Your task to perform on an android device: Go to location settings Image 0: 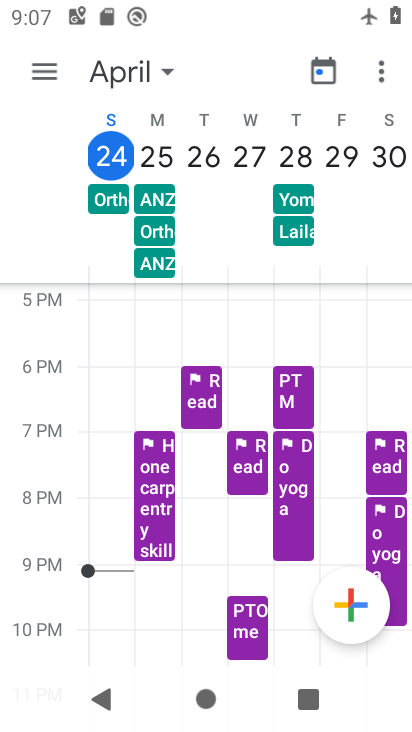
Step 0: press home button
Your task to perform on an android device: Go to location settings Image 1: 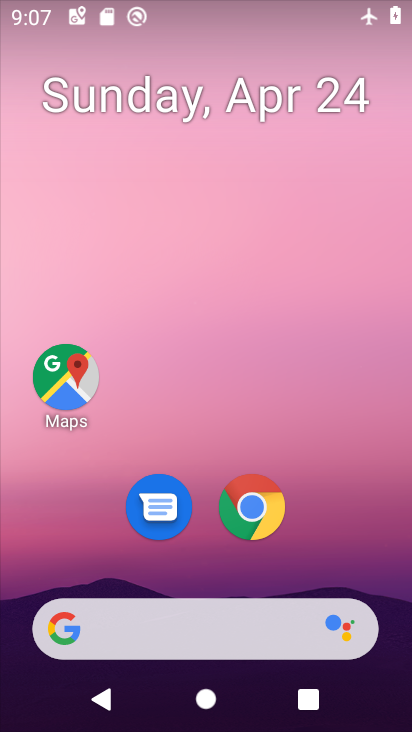
Step 1: drag from (377, 11) to (373, 304)
Your task to perform on an android device: Go to location settings Image 2: 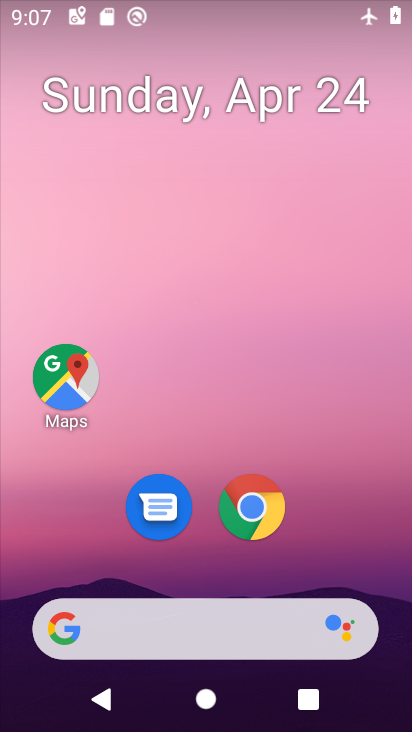
Step 2: drag from (365, 2) to (341, 520)
Your task to perform on an android device: Go to location settings Image 3: 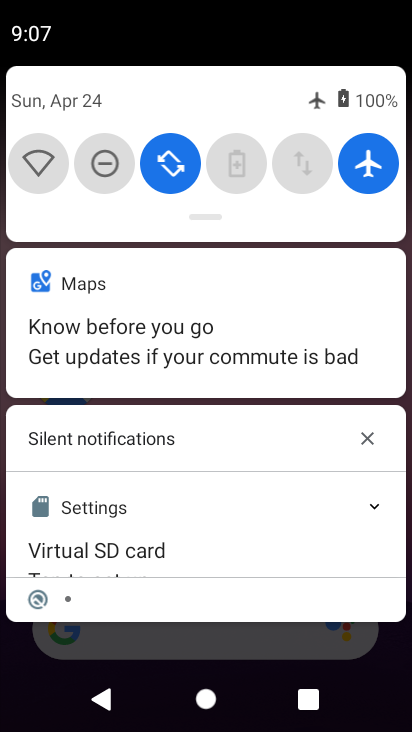
Step 3: click (352, 164)
Your task to perform on an android device: Go to location settings Image 4: 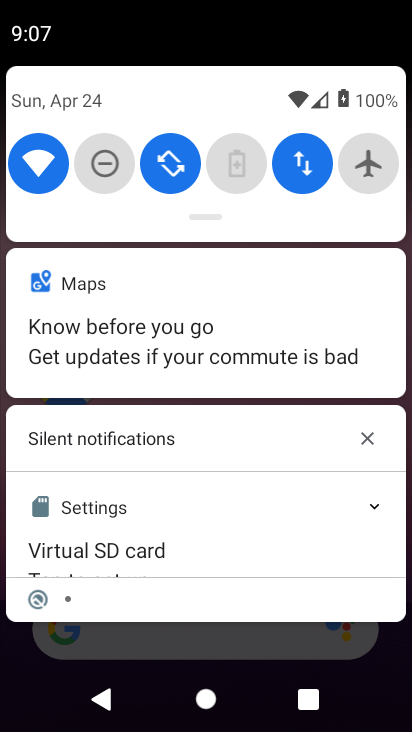
Step 4: drag from (295, 412) to (307, 68)
Your task to perform on an android device: Go to location settings Image 5: 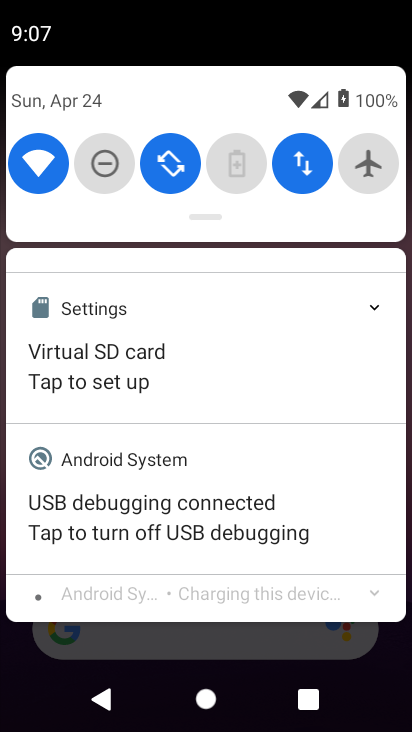
Step 5: drag from (226, 662) to (220, 139)
Your task to perform on an android device: Go to location settings Image 6: 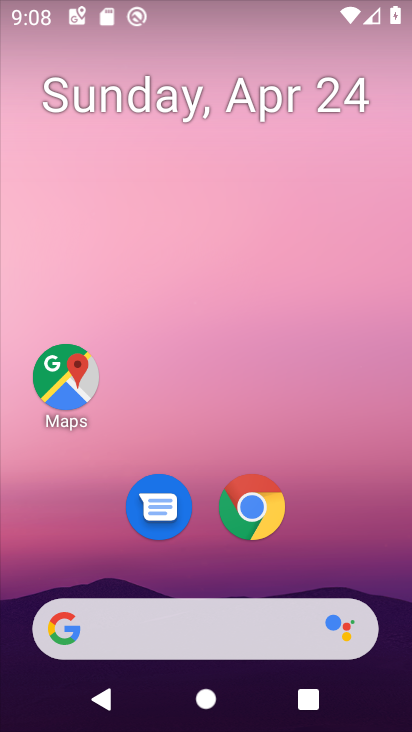
Step 6: drag from (381, 573) to (345, 33)
Your task to perform on an android device: Go to location settings Image 7: 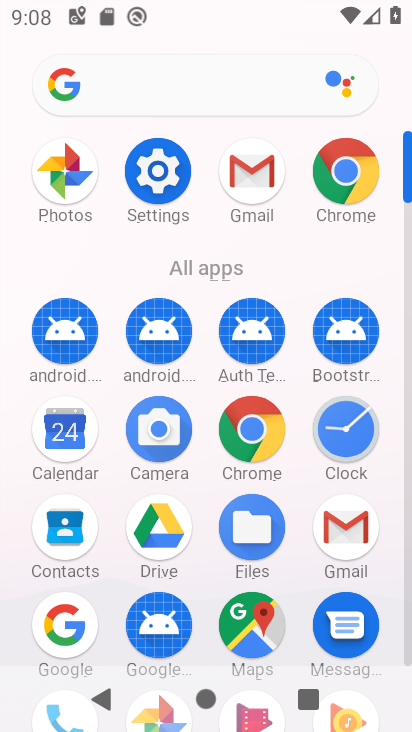
Step 7: click (155, 200)
Your task to perform on an android device: Go to location settings Image 8: 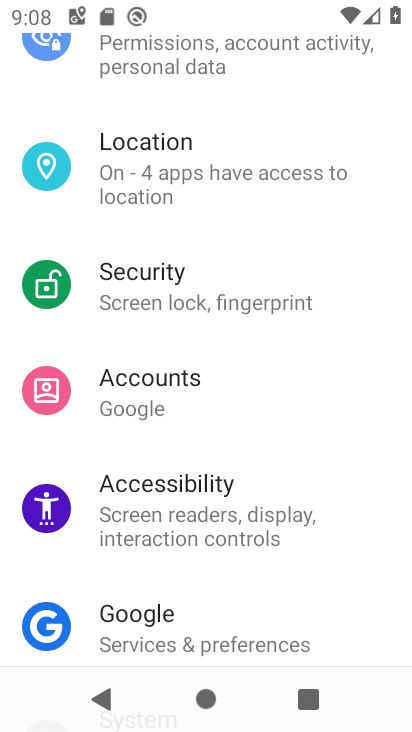
Step 8: drag from (227, 542) to (226, 244)
Your task to perform on an android device: Go to location settings Image 9: 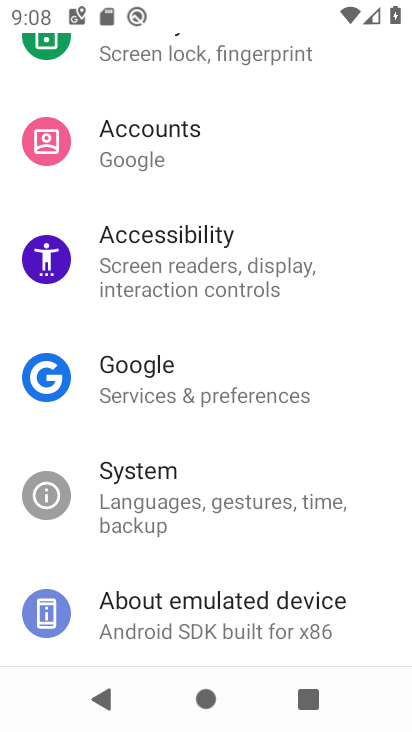
Step 9: drag from (196, 161) to (198, 468)
Your task to perform on an android device: Go to location settings Image 10: 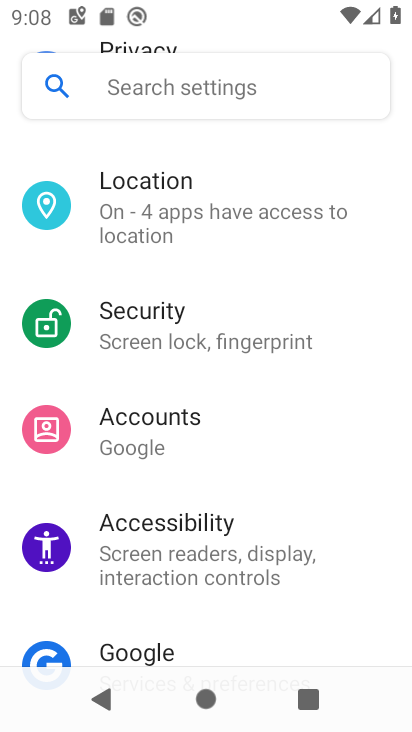
Step 10: click (141, 206)
Your task to perform on an android device: Go to location settings Image 11: 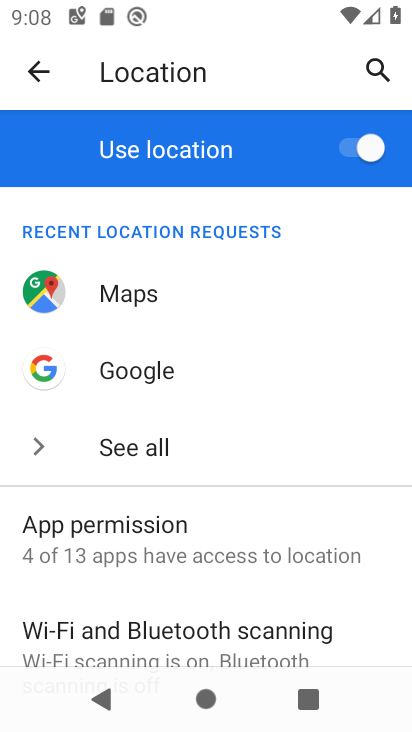
Step 11: task complete